Your task to perform on an android device: Open the map Image 0: 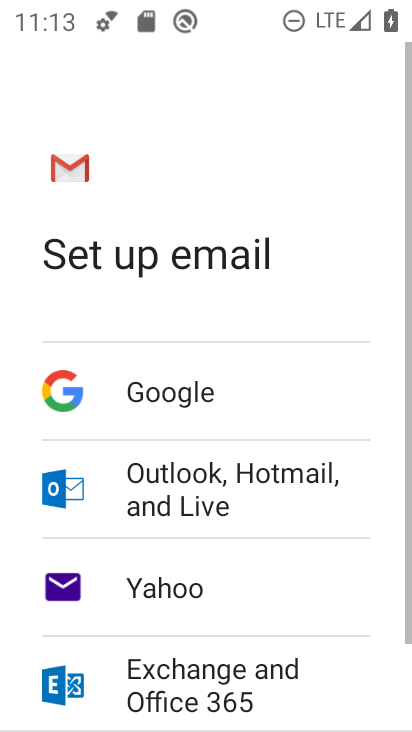
Step 0: press home button
Your task to perform on an android device: Open the map Image 1: 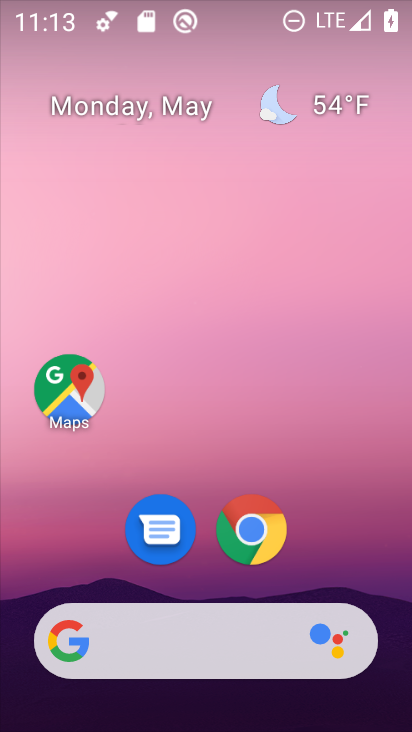
Step 1: click (73, 402)
Your task to perform on an android device: Open the map Image 2: 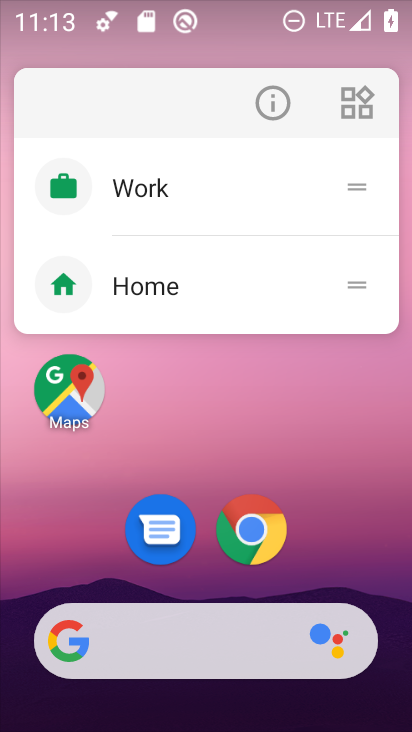
Step 2: click (67, 400)
Your task to perform on an android device: Open the map Image 3: 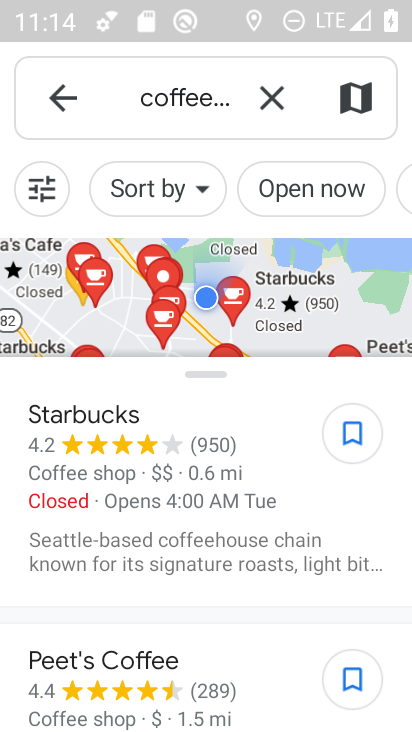
Step 3: task complete